Your task to perform on an android device: Empty the shopping cart on amazon. Search for "lenovo thinkpad" on amazon, select the first entry, add it to the cart, then select checkout. Image 0: 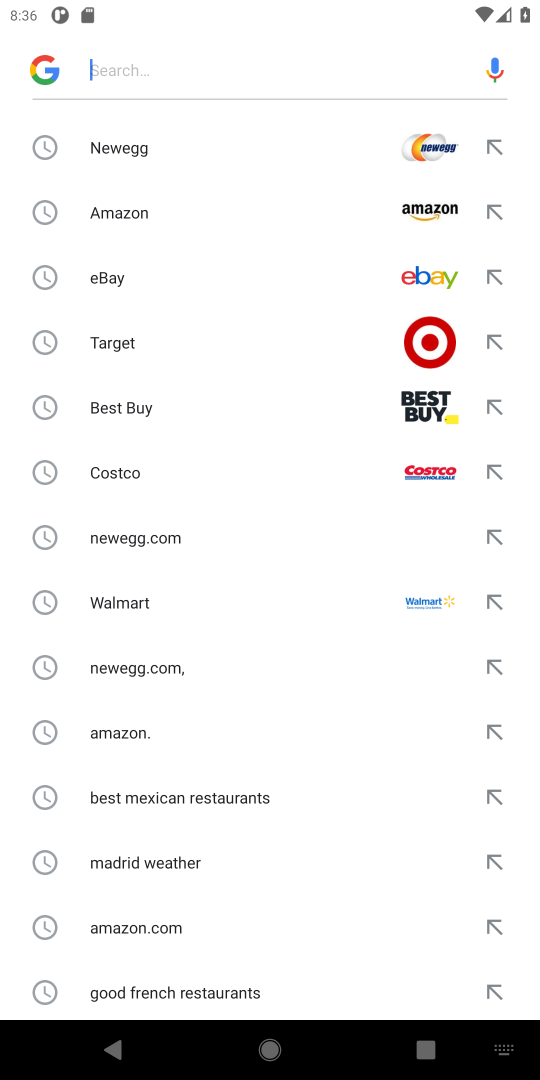
Step 0: click (121, 921)
Your task to perform on an android device: Empty the shopping cart on amazon. Search for "lenovo thinkpad" on amazon, select the first entry, add it to the cart, then select checkout. Image 1: 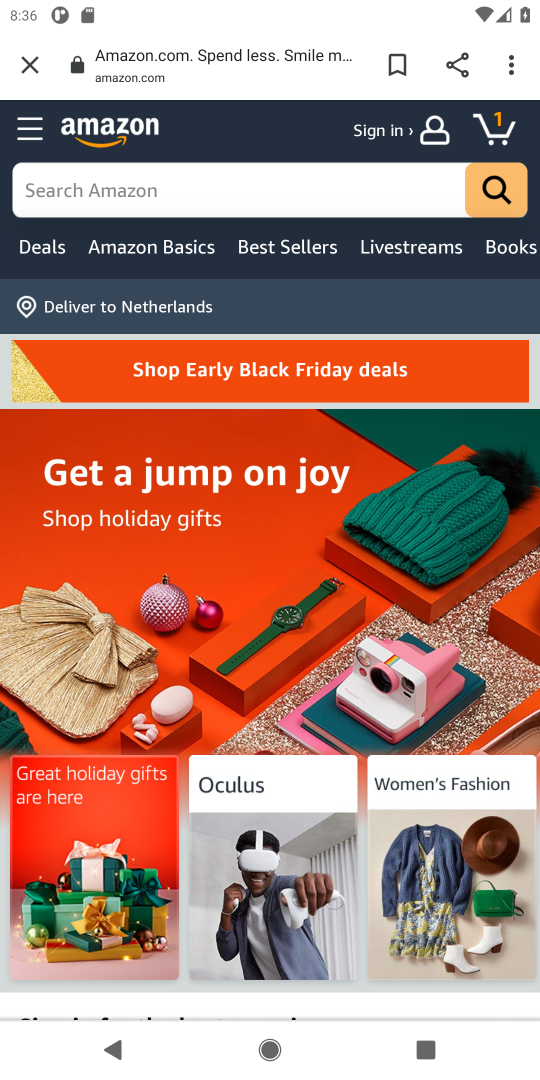
Step 1: click (490, 131)
Your task to perform on an android device: Empty the shopping cart on amazon. Search for "lenovo thinkpad" on amazon, select the first entry, add it to the cart, then select checkout. Image 2: 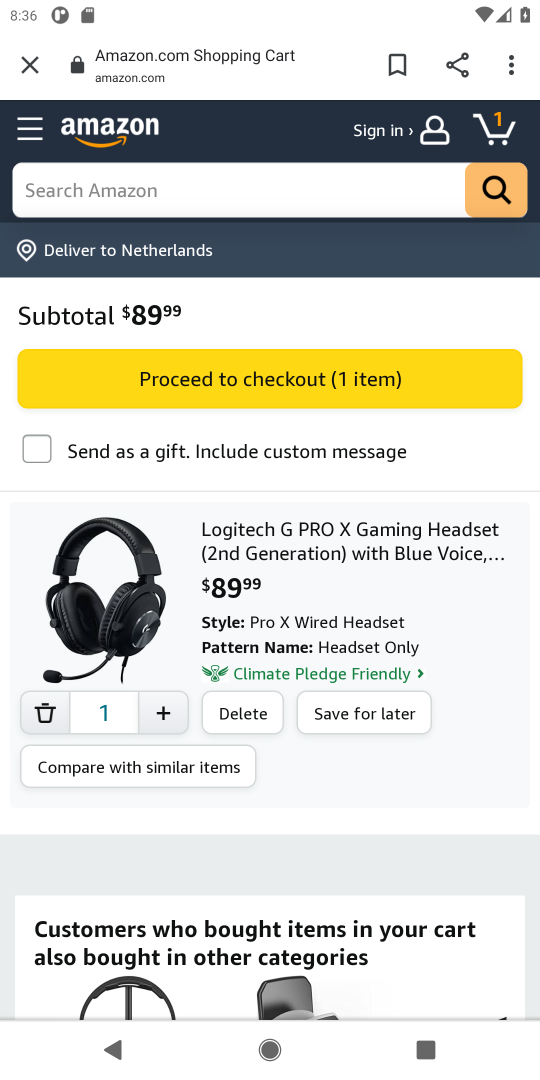
Step 2: click (229, 715)
Your task to perform on an android device: Empty the shopping cart on amazon. Search for "lenovo thinkpad" on amazon, select the first entry, add it to the cart, then select checkout. Image 3: 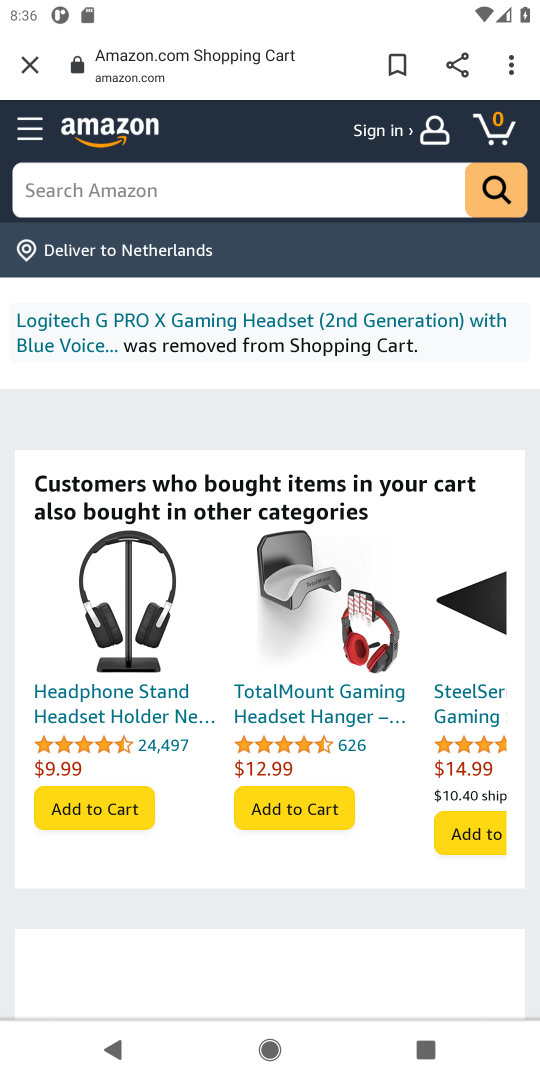
Step 3: drag from (248, 508) to (229, 671)
Your task to perform on an android device: Empty the shopping cart on amazon. Search for "lenovo thinkpad" on amazon, select the first entry, add it to the cart, then select checkout. Image 4: 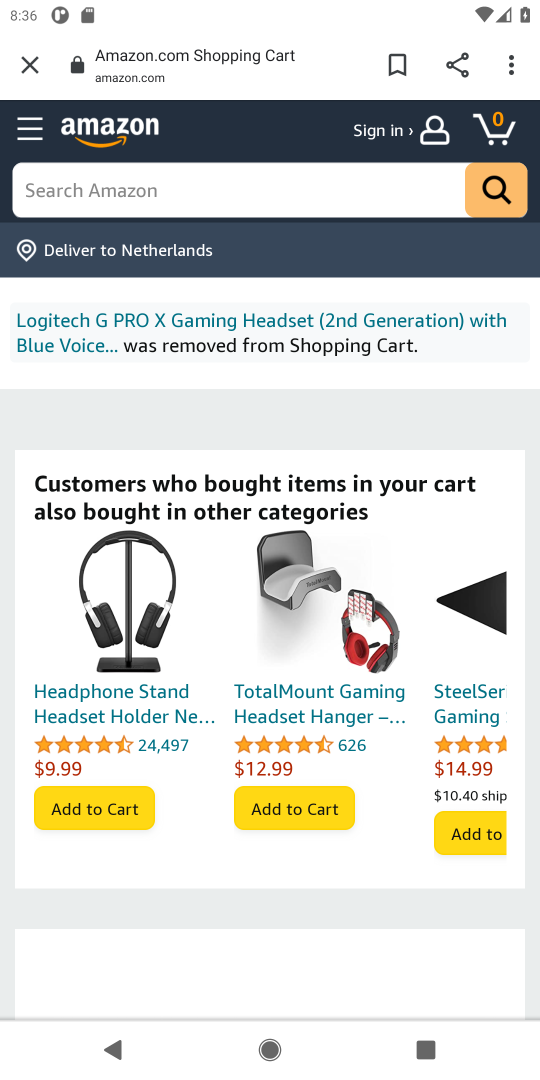
Step 4: click (146, 195)
Your task to perform on an android device: Empty the shopping cart on amazon. Search for "lenovo thinkpad" on amazon, select the first entry, add it to the cart, then select checkout. Image 5: 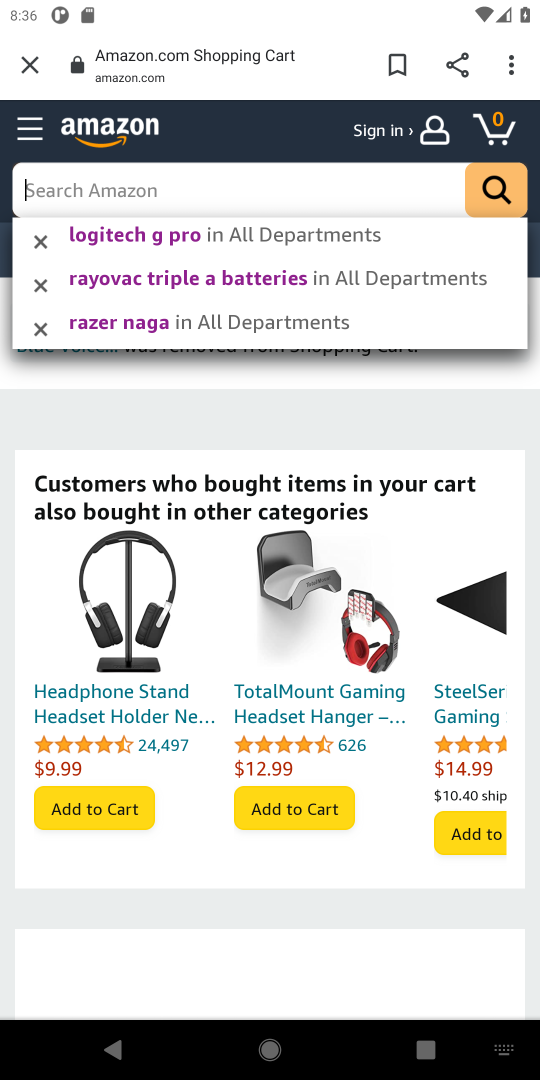
Step 5: type "lenovo thinkpad"
Your task to perform on an android device: Empty the shopping cart on amazon. Search for "lenovo thinkpad" on amazon, select the first entry, add it to the cart, then select checkout. Image 6: 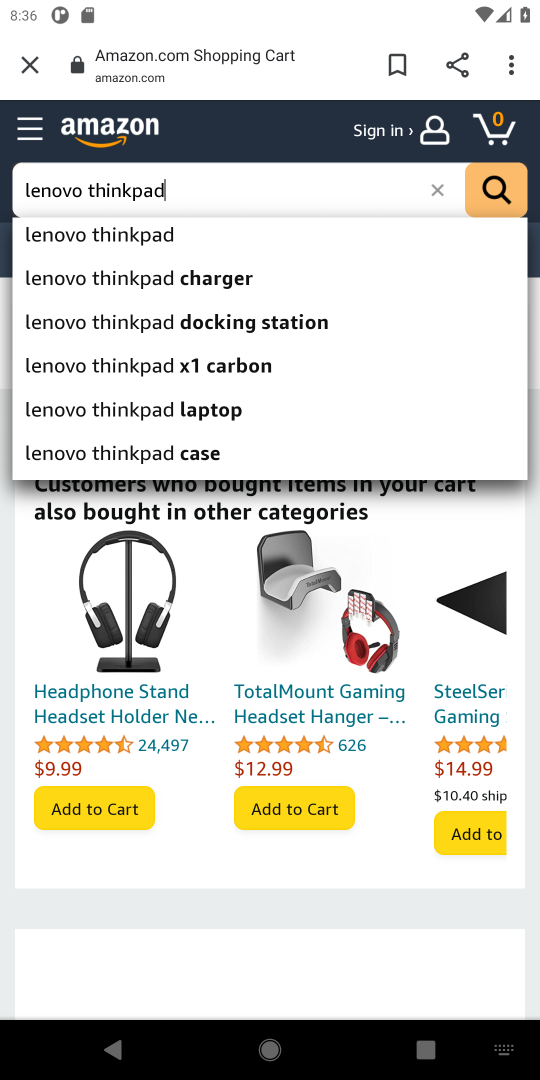
Step 6: click (124, 235)
Your task to perform on an android device: Empty the shopping cart on amazon. Search for "lenovo thinkpad" on amazon, select the first entry, add it to the cart, then select checkout. Image 7: 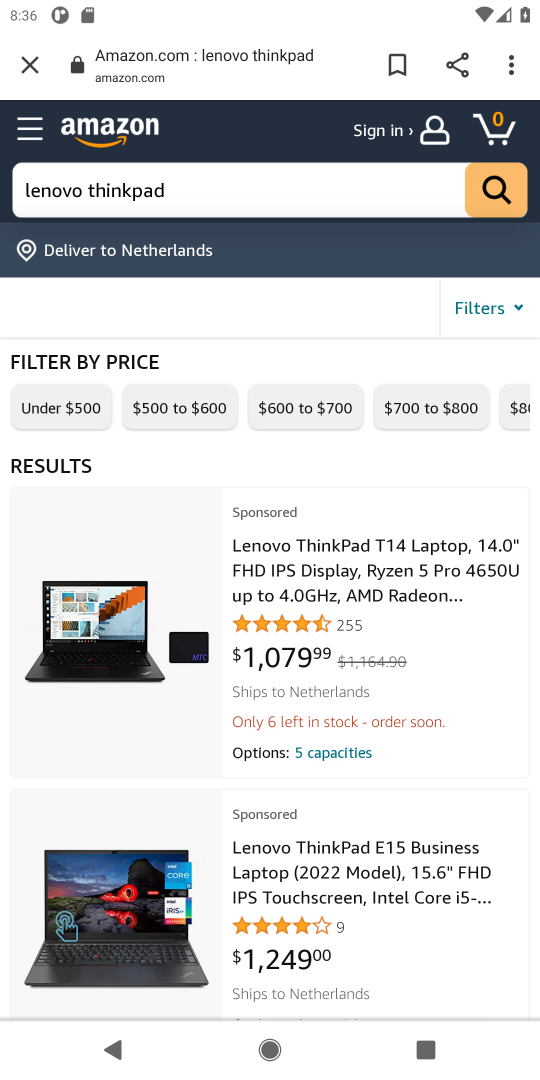
Step 7: click (89, 624)
Your task to perform on an android device: Empty the shopping cart on amazon. Search for "lenovo thinkpad" on amazon, select the first entry, add it to the cart, then select checkout. Image 8: 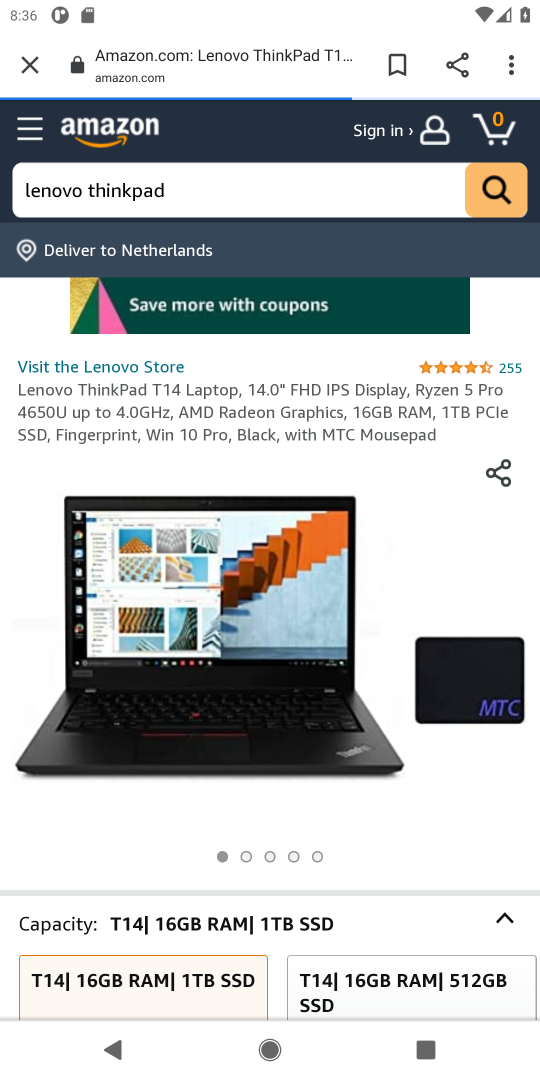
Step 8: drag from (130, 772) to (135, 362)
Your task to perform on an android device: Empty the shopping cart on amazon. Search for "lenovo thinkpad" on amazon, select the first entry, add it to the cart, then select checkout. Image 9: 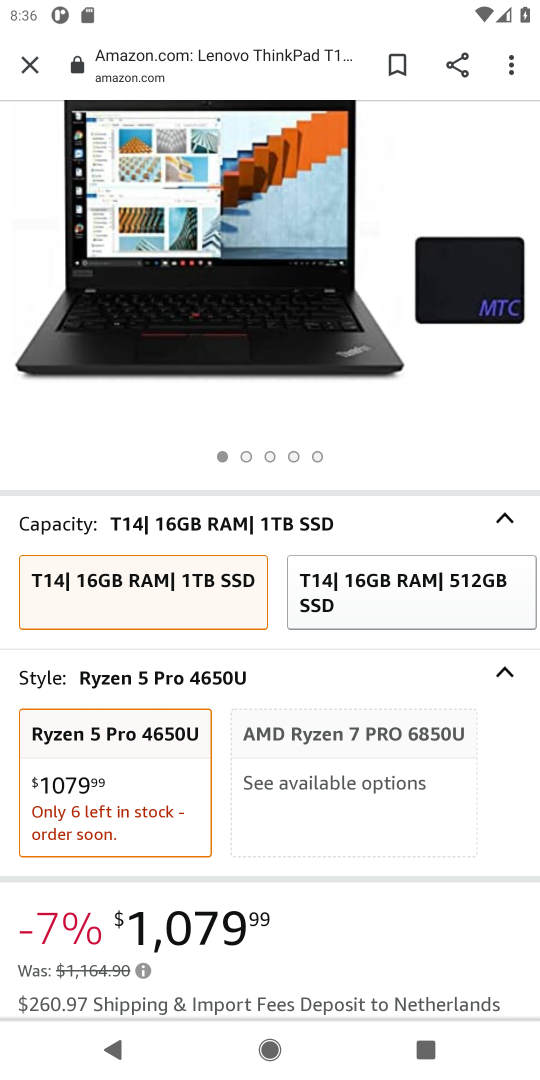
Step 9: drag from (136, 633) to (134, 247)
Your task to perform on an android device: Empty the shopping cart on amazon. Search for "lenovo thinkpad" on amazon, select the first entry, add it to the cart, then select checkout. Image 10: 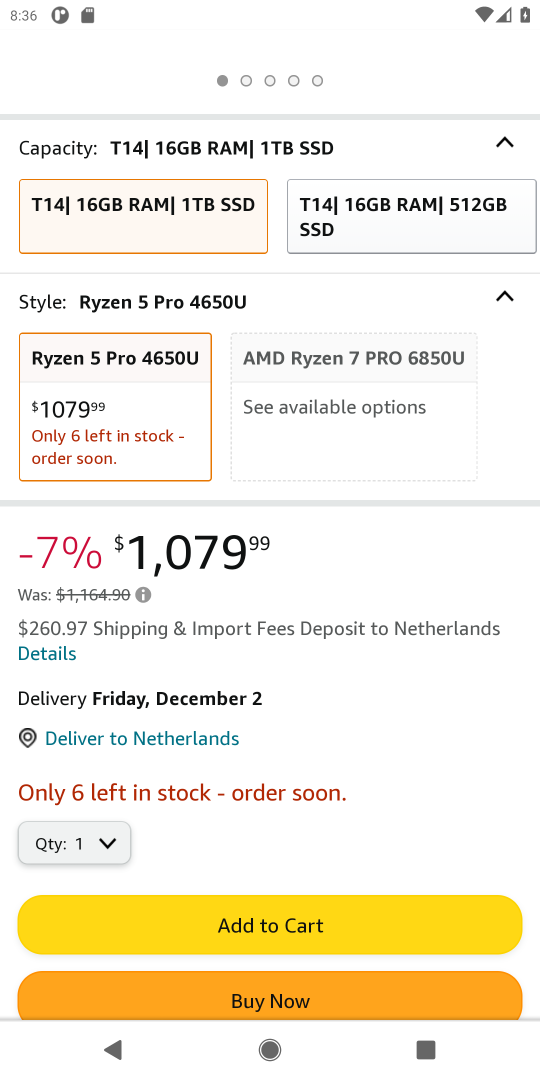
Step 10: click (259, 904)
Your task to perform on an android device: Empty the shopping cart on amazon. Search for "lenovo thinkpad" on amazon, select the first entry, add it to the cart, then select checkout. Image 11: 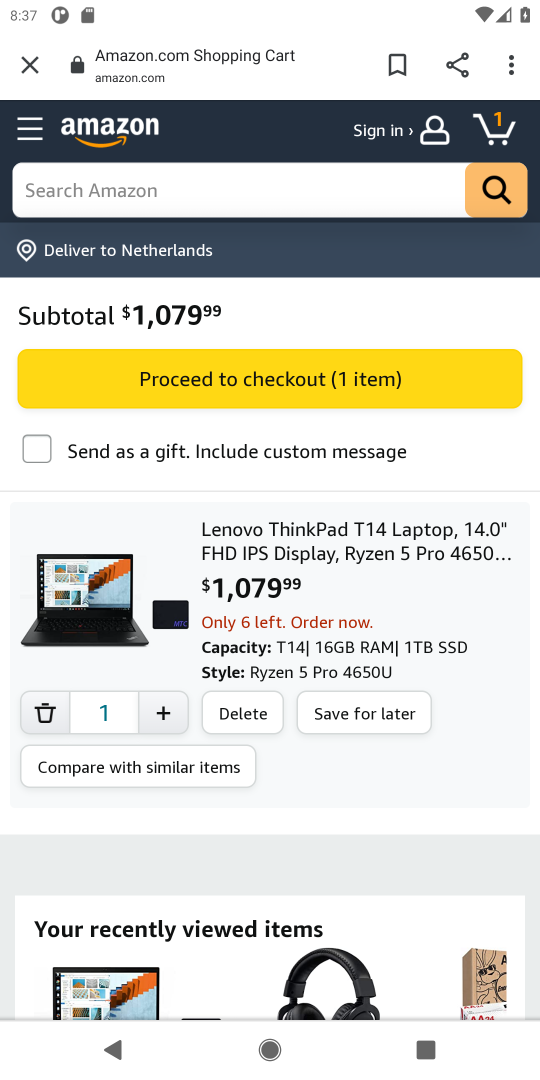
Step 11: click (242, 373)
Your task to perform on an android device: Empty the shopping cart on amazon. Search for "lenovo thinkpad" on amazon, select the first entry, add it to the cart, then select checkout. Image 12: 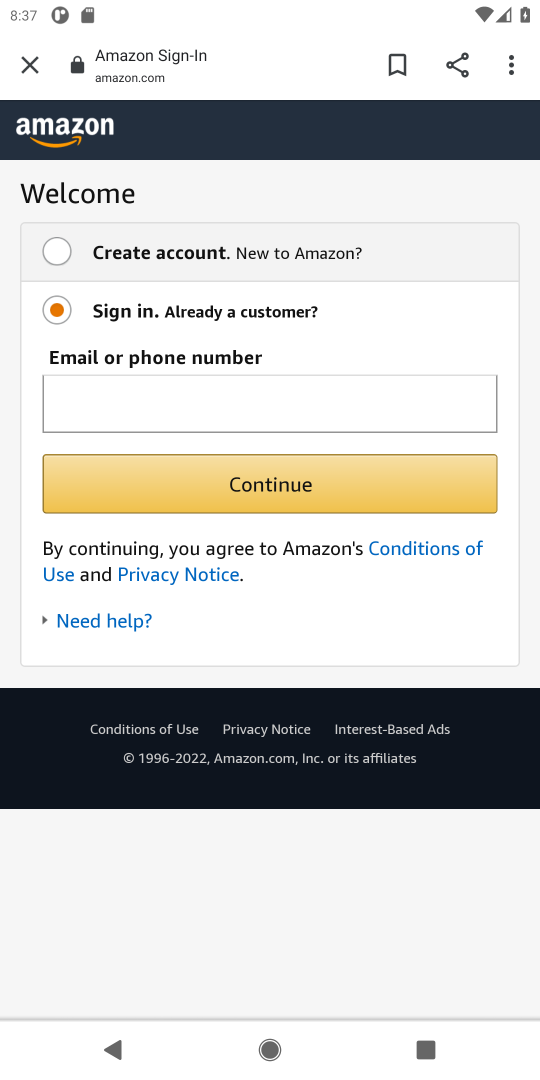
Step 12: task complete